Your task to perform on an android device: set default search engine in the chrome app Image 0: 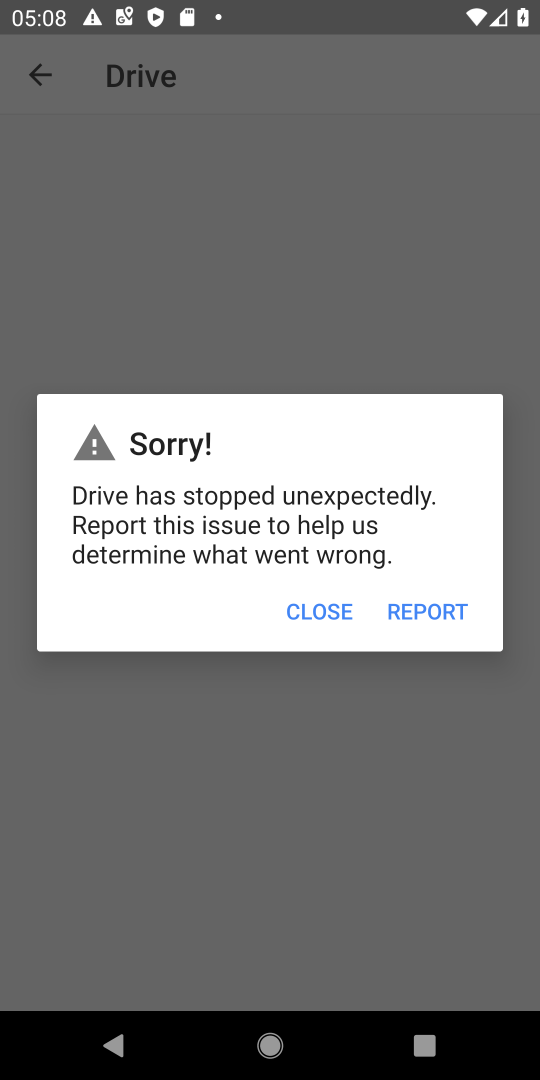
Step 0: press home button
Your task to perform on an android device: set default search engine in the chrome app Image 1: 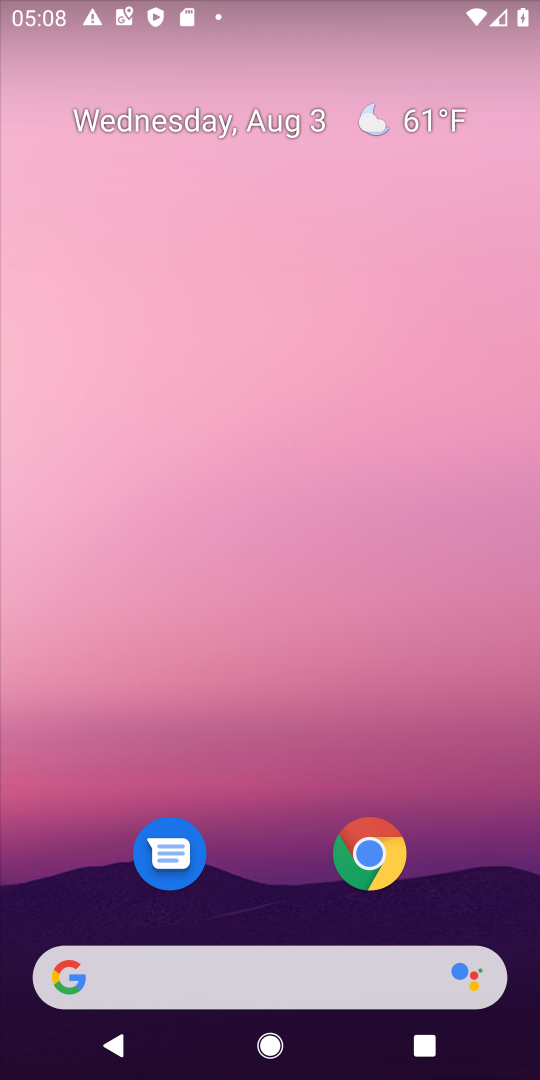
Step 1: click (364, 862)
Your task to perform on an android device: set default search engine in the chrome app Image 2: 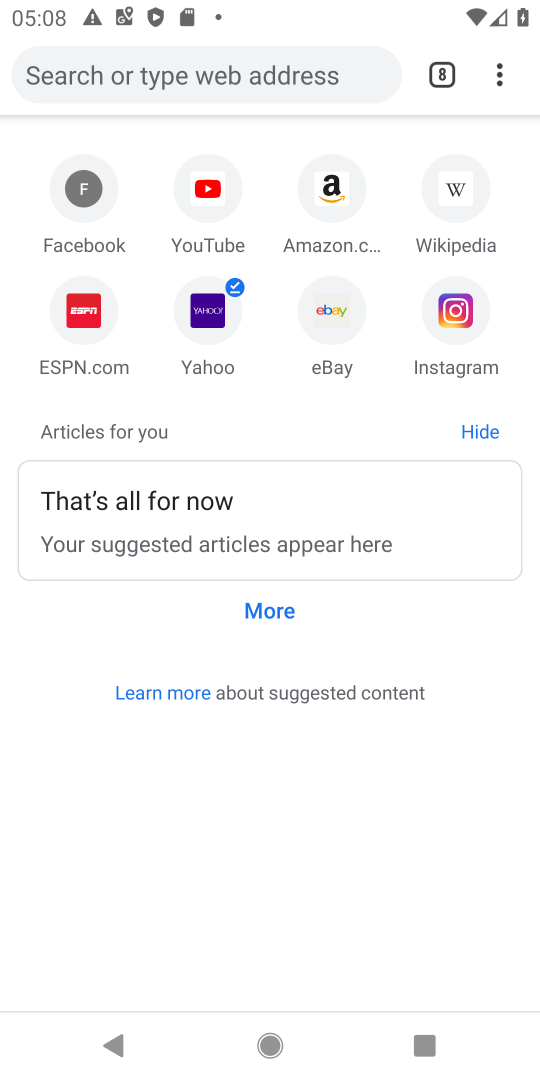
Step 2: click (501, 84)
Your task to perform on an android device: set default search engine in the chrome app Image 3: 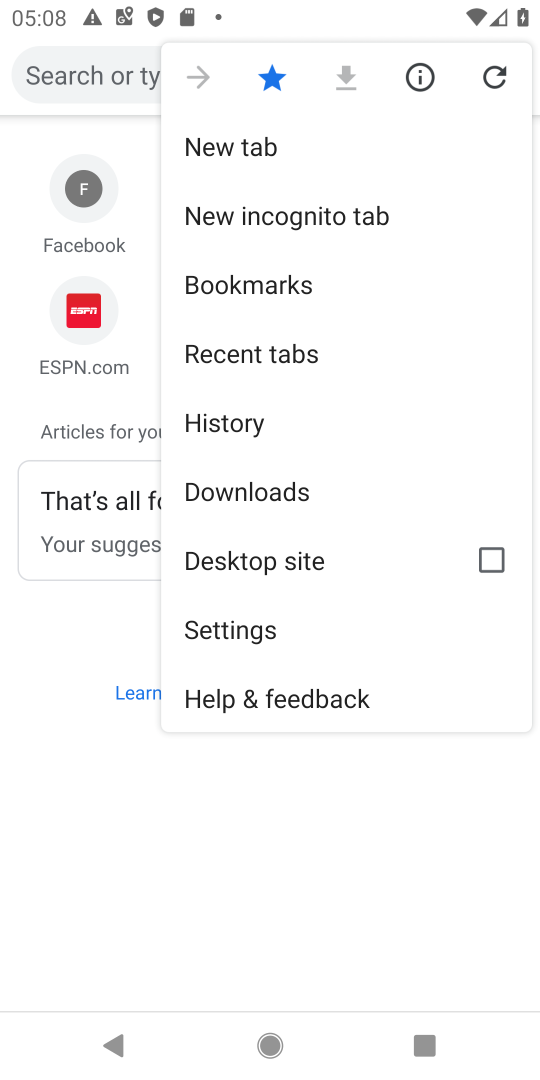
Step 3: click (215, 630)
Your task to perform on an android device: set default search engine in the chrome app Image 4: 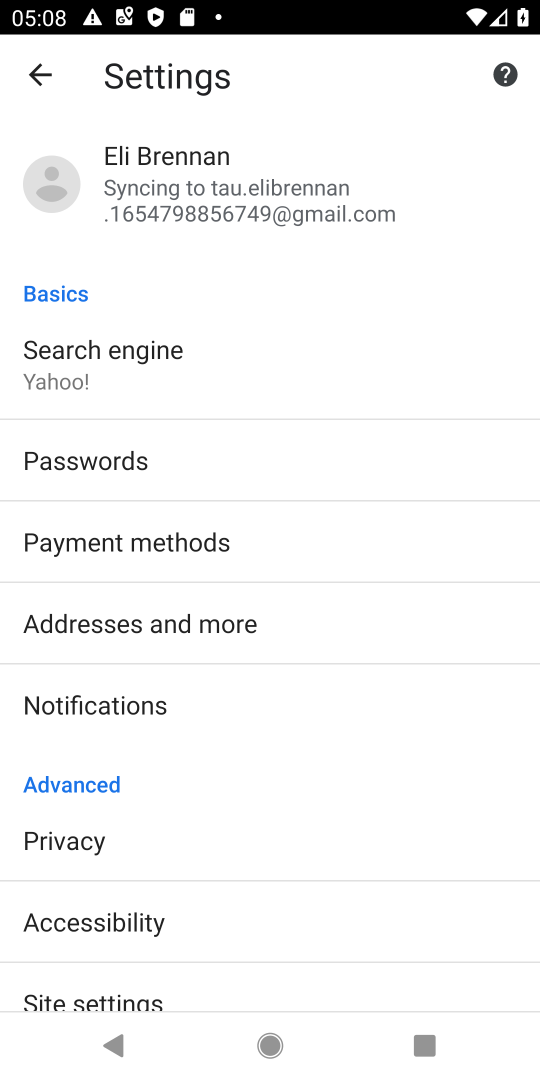
Step 4: click (91, 358)
Your task to perform on an android device: set default search engine in the chrome app Image 5: 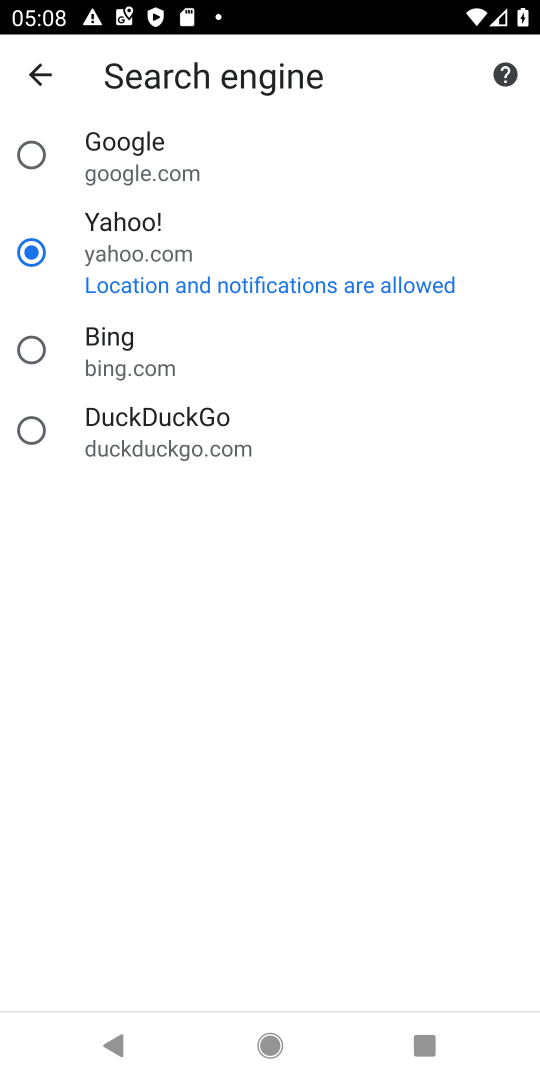
Step 5: click (32, 157)
Your task to perform on an android device: set default search engine in the chrome app Image 6: 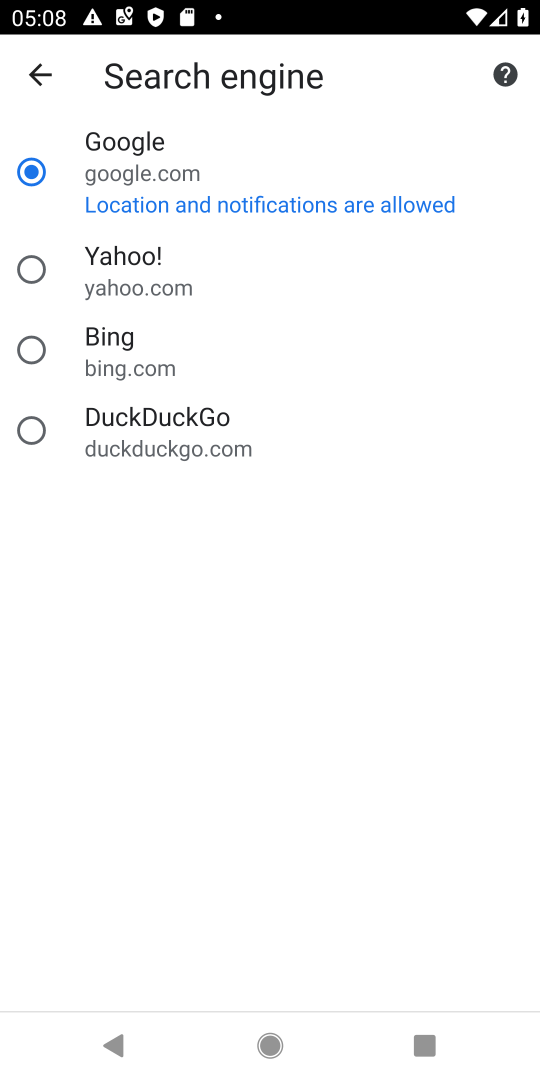
Step 6: task complete